Your task to perform on an android device: Search for razer blade on costco, select the first entry, and add it to the cart. Image 0: 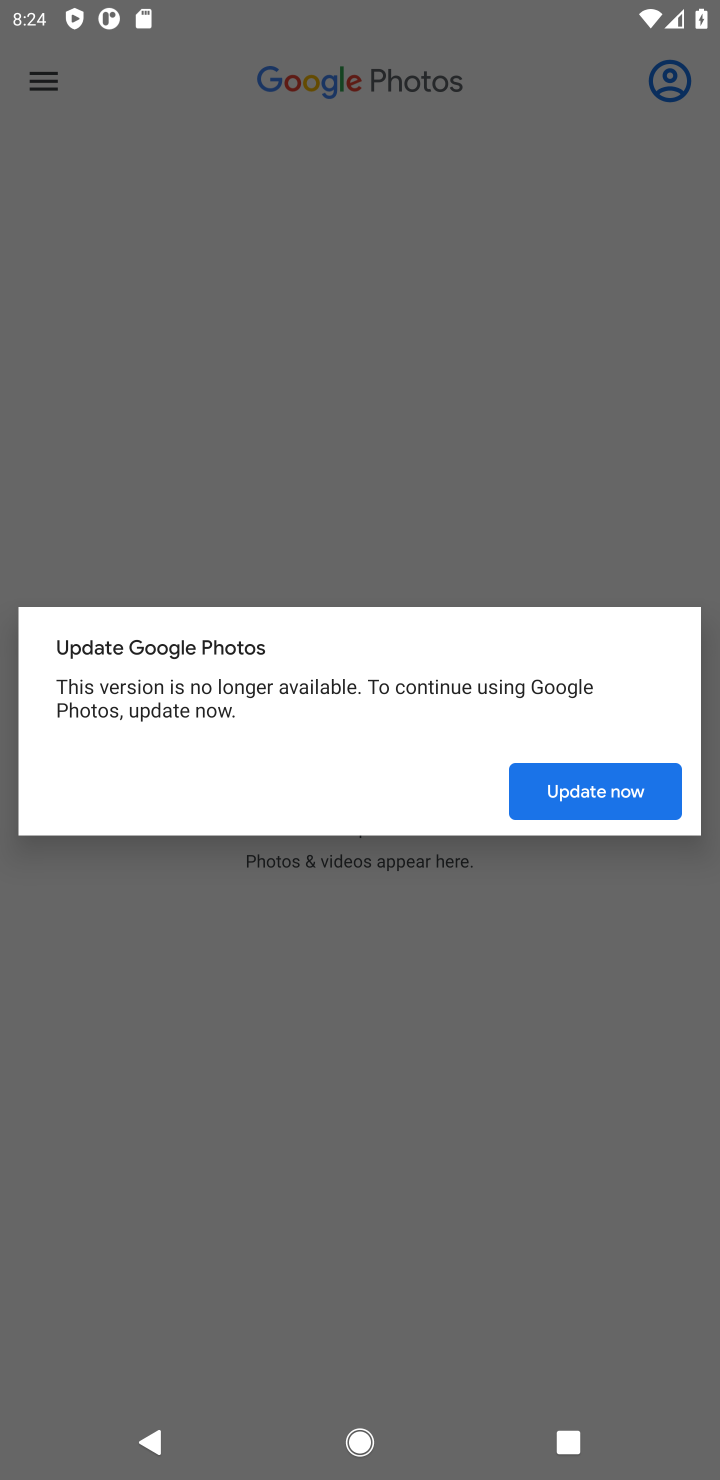
Step 0: press home button
Your task to perform on an android device: Search for razer blade on costco, select the first entry, and add it to the cart. Image 1: 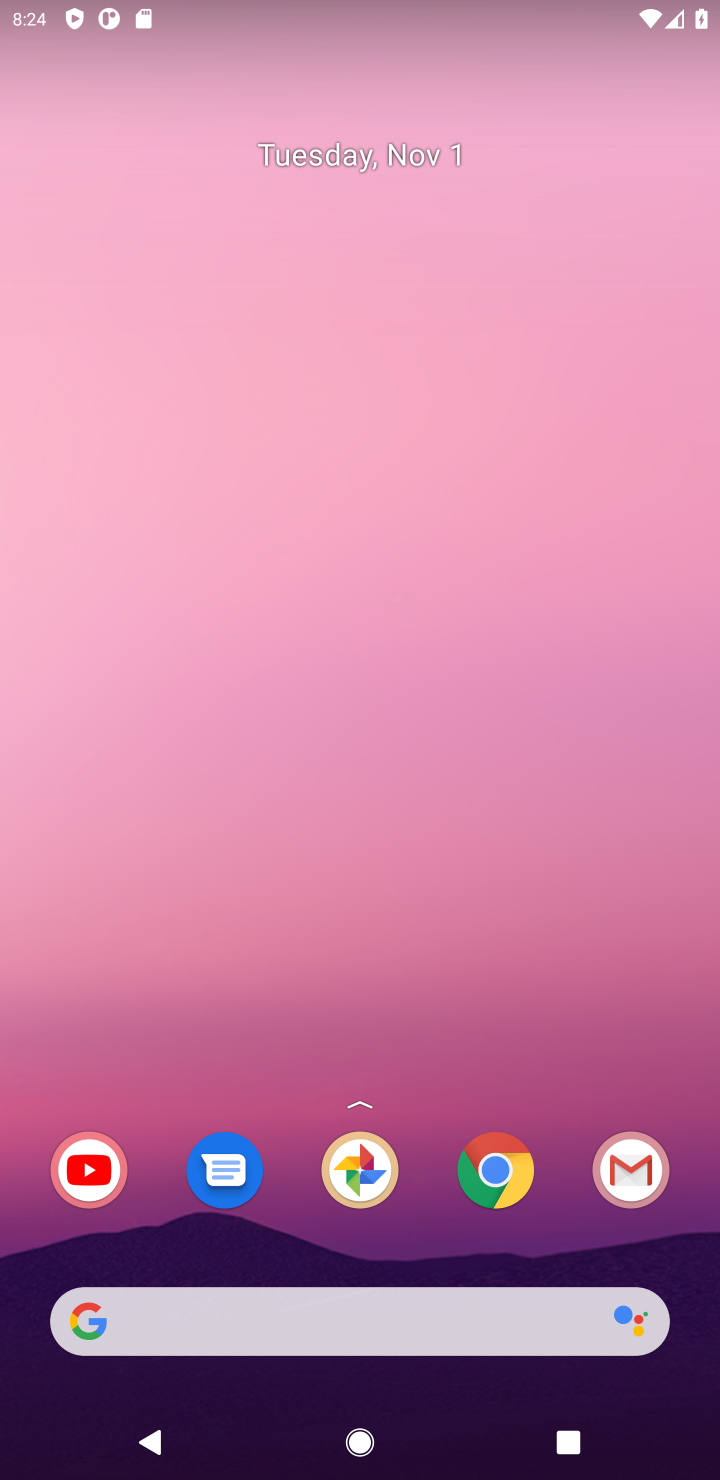
Step 1: click (497, 1189)
Your task to perform on an android device: Search for razer blade on costco, select the first entry, and add it to the cart. Image 2: 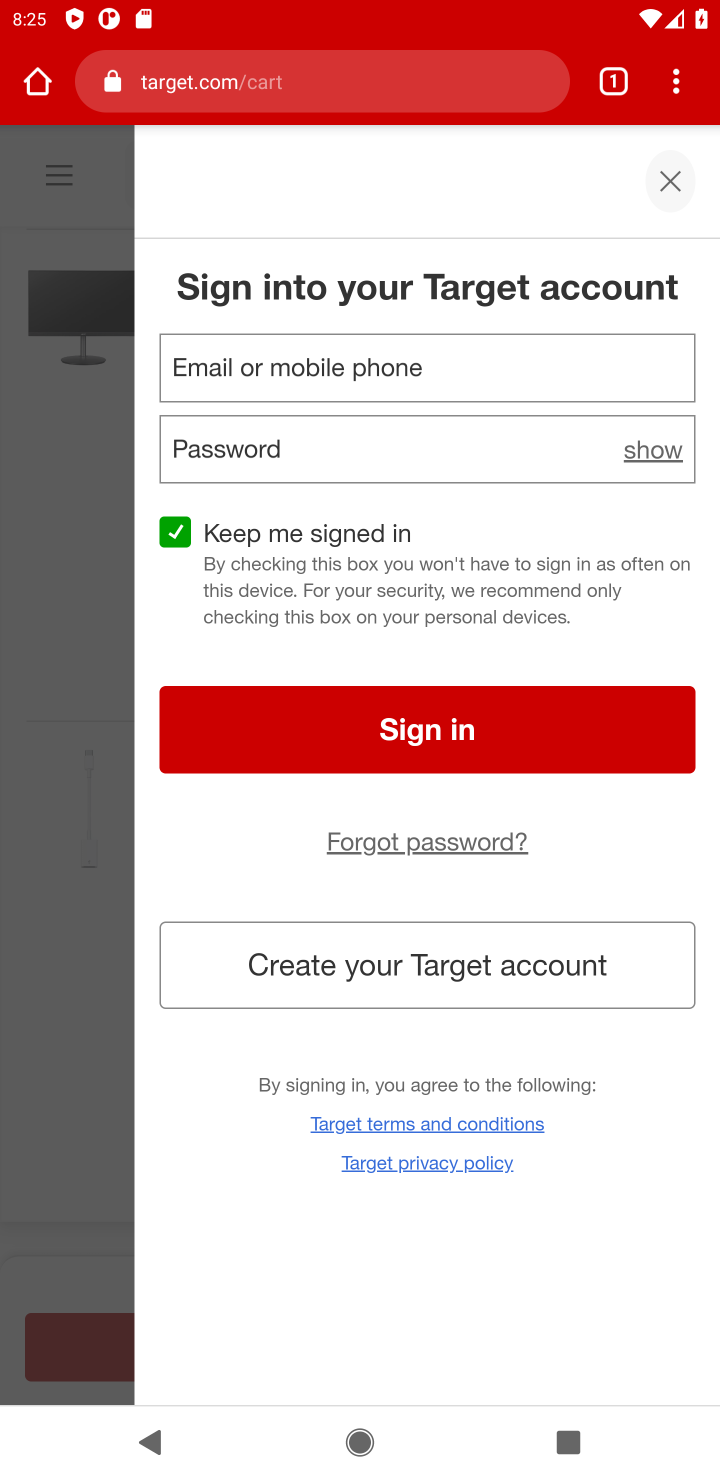
Step 2: click (417, 97)
Your task to perform on an android device: Search for razer blade on costco, select the first entry, and add it to the cart. Image 3: 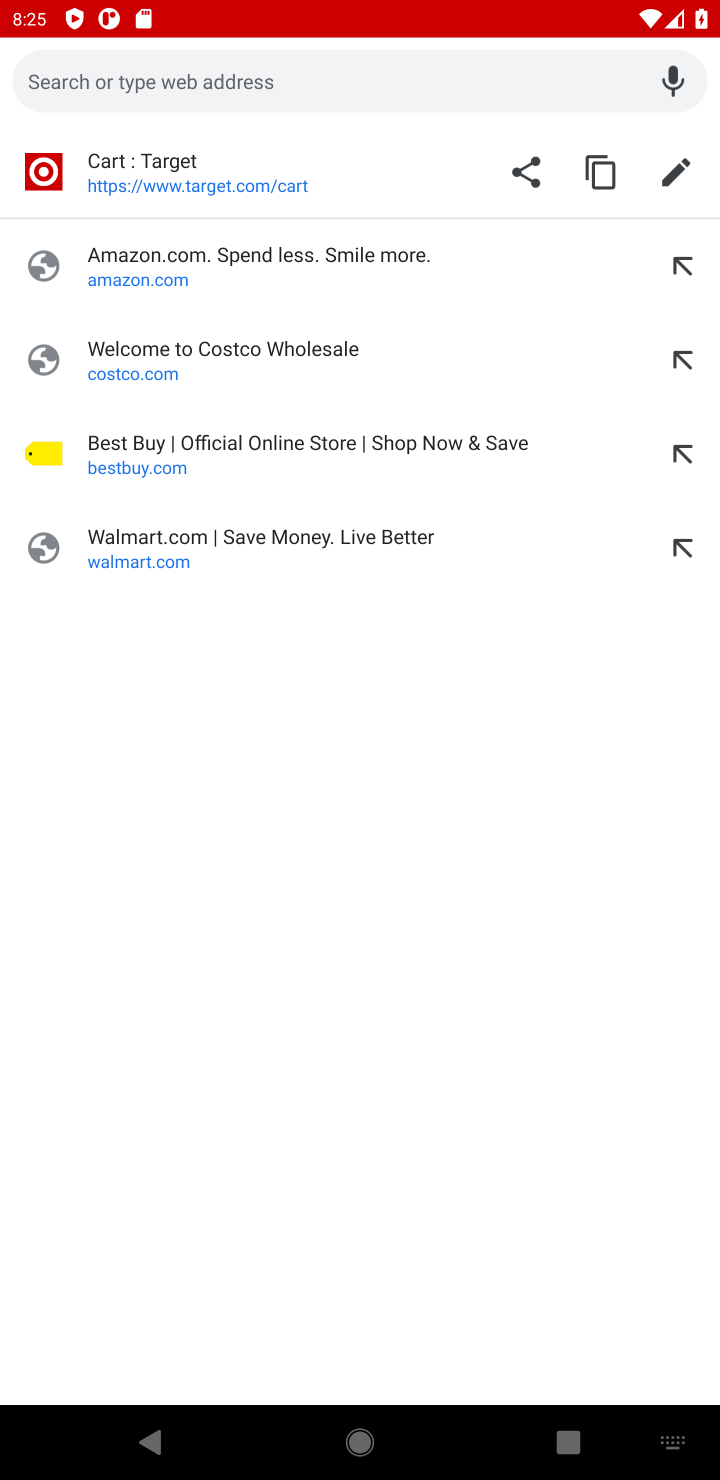
Step 3: type "costco"
Your task to perform on an android device: Search for razer blade on costco, select the first entry, and add it to the cart. Image 4: 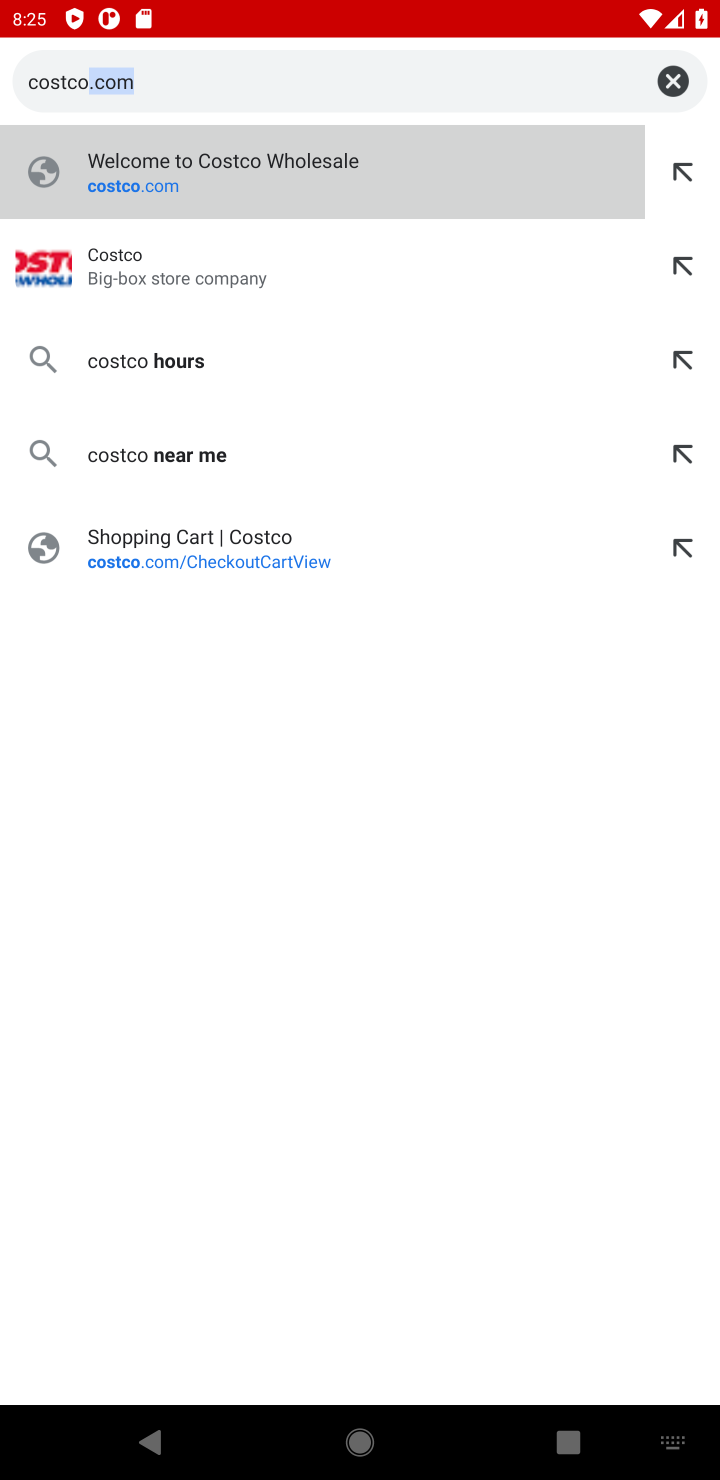
Step 4: press enter
Your task to perform on an android device: Search for razer blade on costco, select the first entry, and add it to the cart. Image 5: 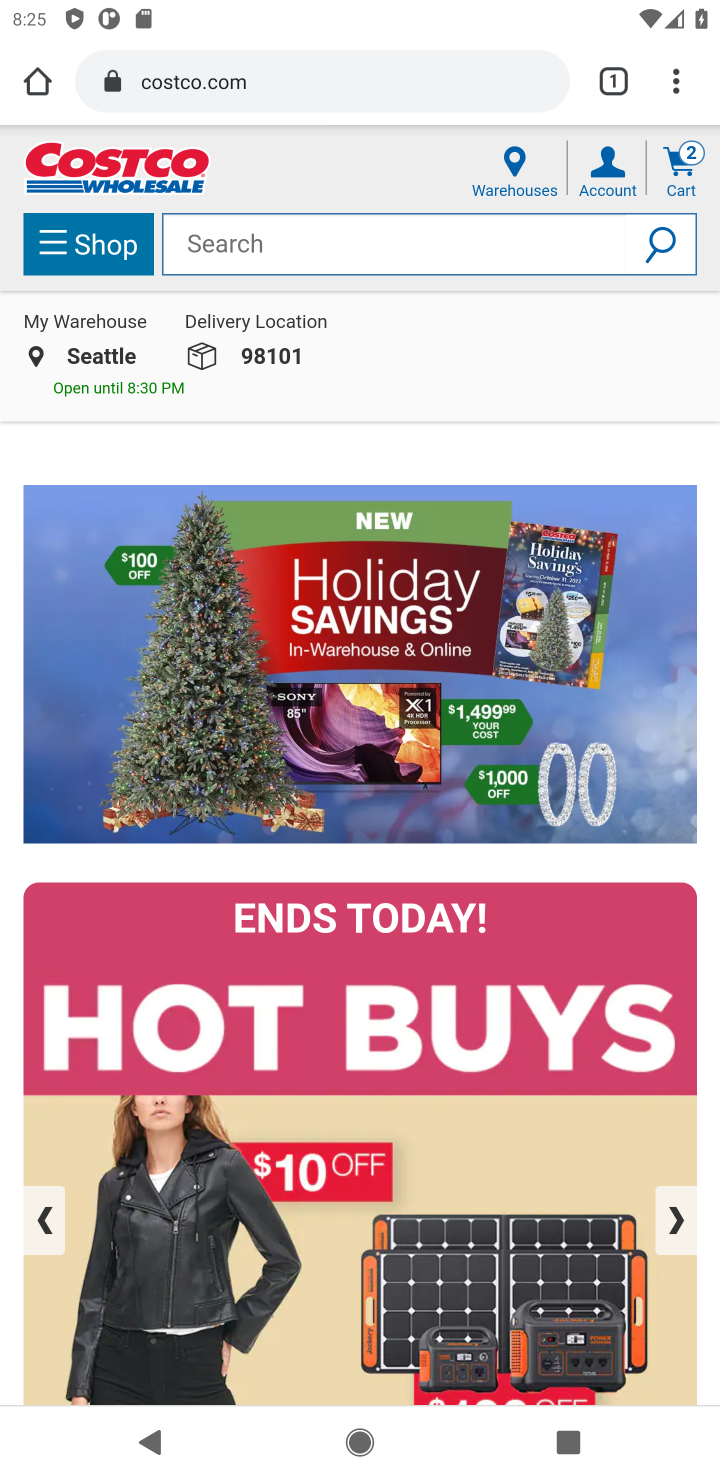
Step 5: click (431, 258)
Your task to perform on an android device: Search for razer blade on costco, select the first entry, and add it to the cart. Image 6: 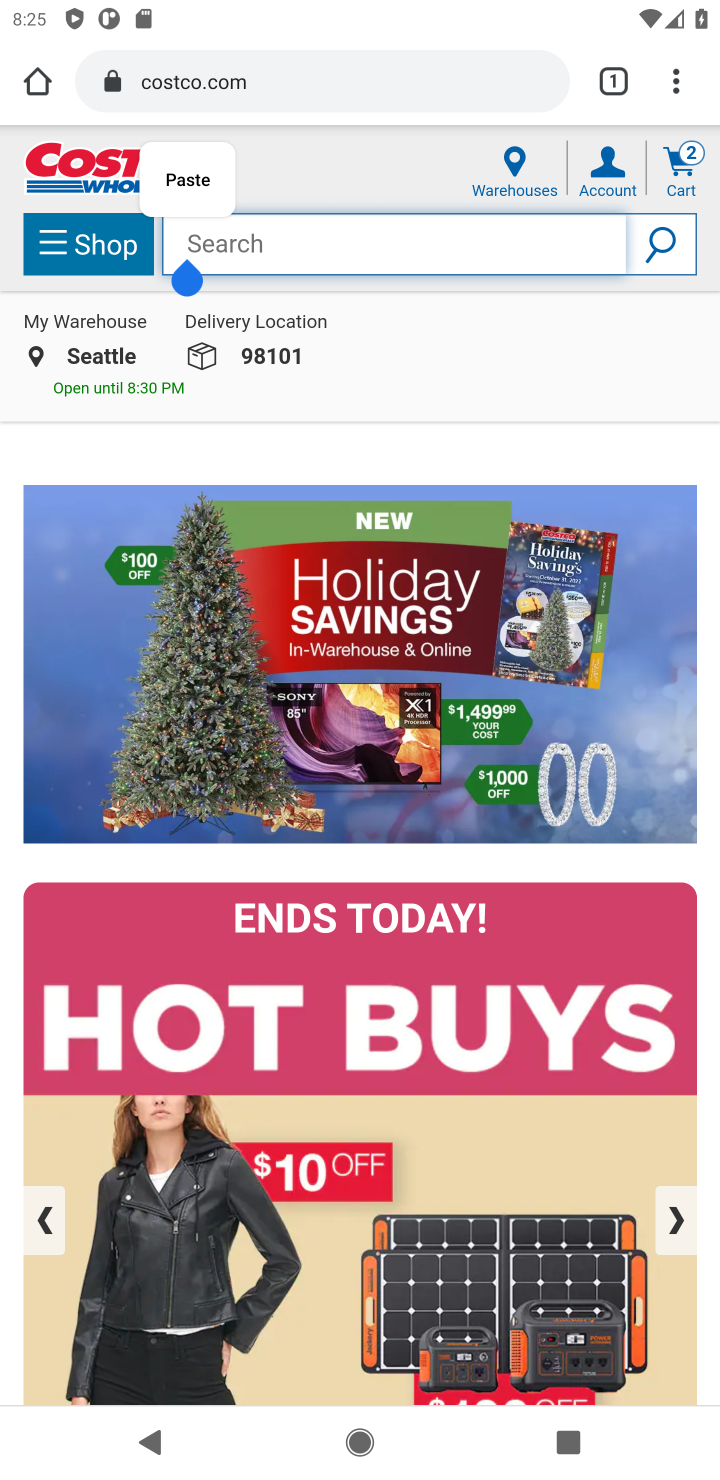
Step 6: type "razer blade"
Your task to perform on an android device: Search for razer blade on costco, select the first entry, and add it to the cart. Image 7: 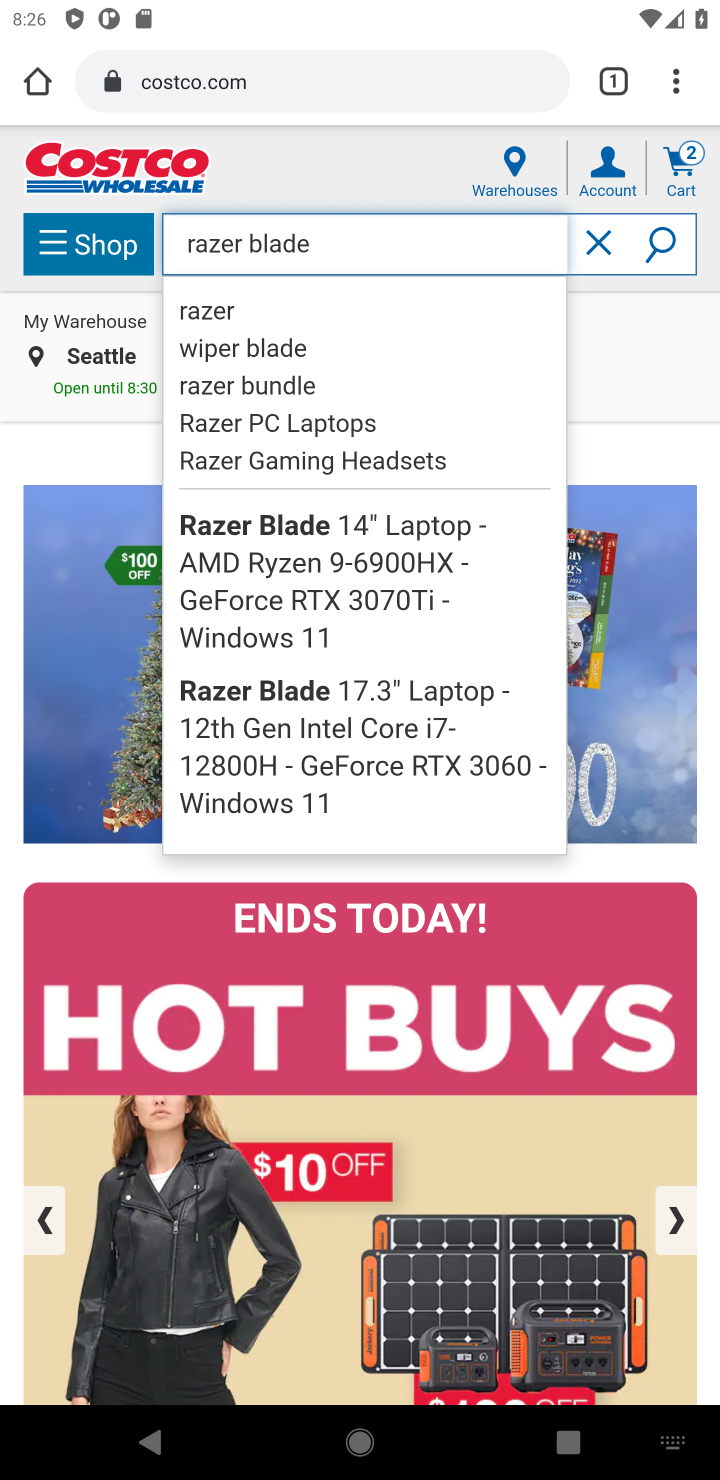
Step 7: press enter
Your task to perform on an android device: Search for razer blade on costco, select the first entry, and add it to the cart. Image 8: 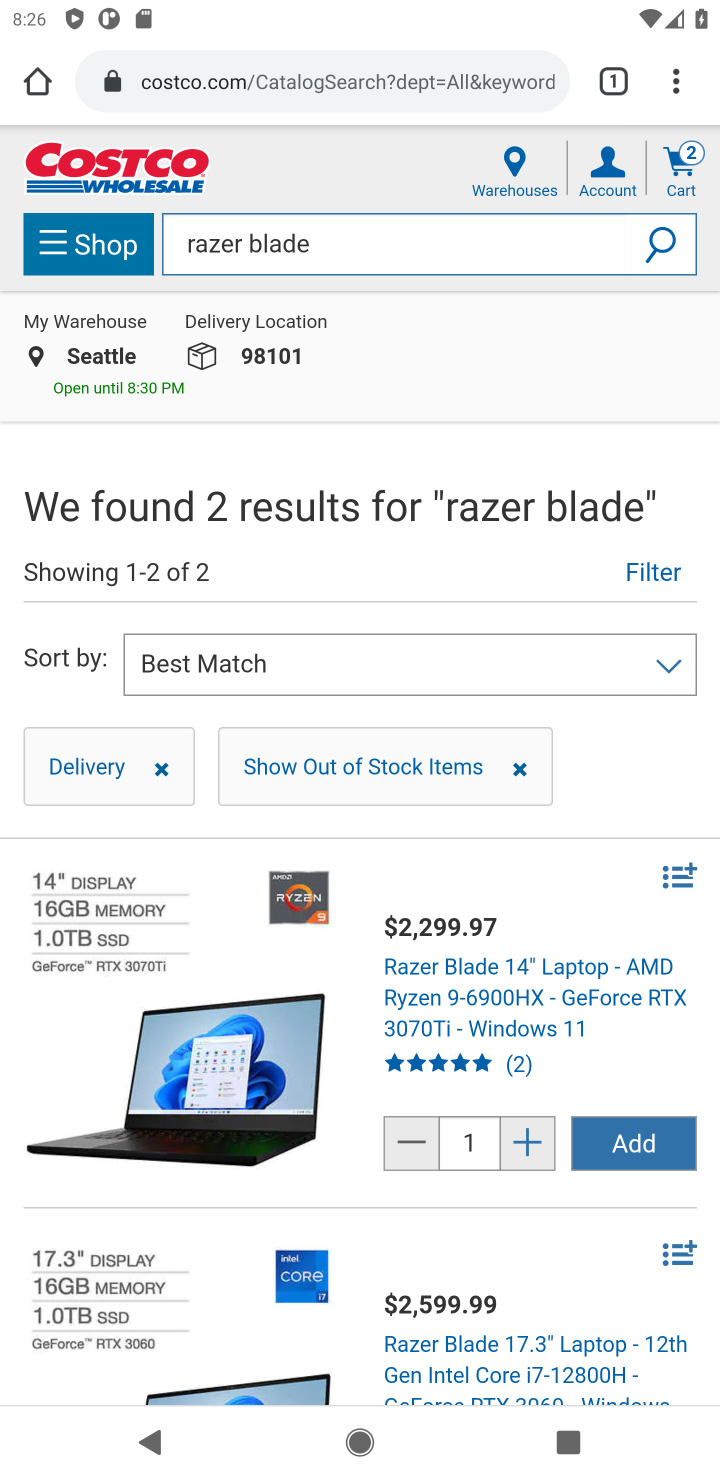
Step 8: click (454, 1083)
Your task to perform on an android device: Search for razer blade on costco, select the first entry, and add it to the cart. Image 9: 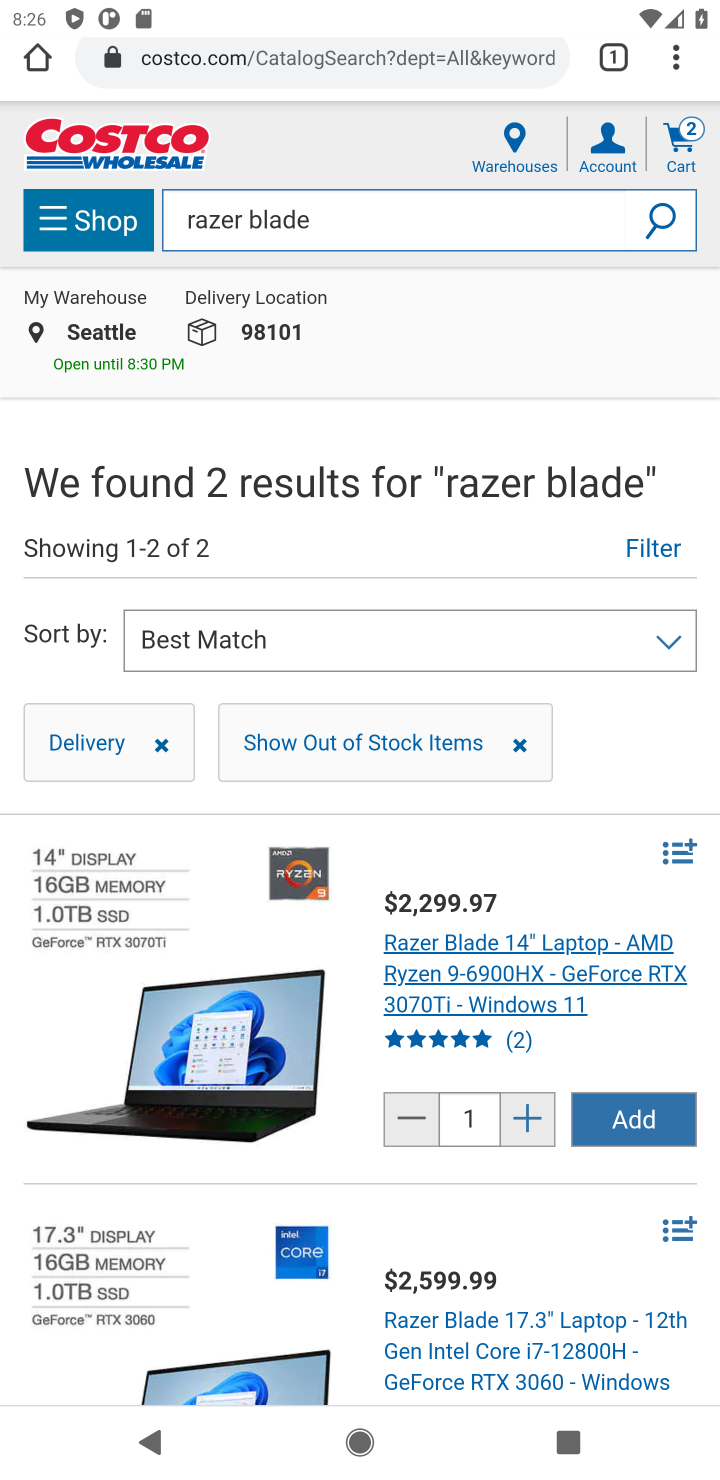
Step 9: click (467, 1047)
Your task to perform on an android device: Search for razer blade on costco, select the first entry, and add it to the cart. Image 10: 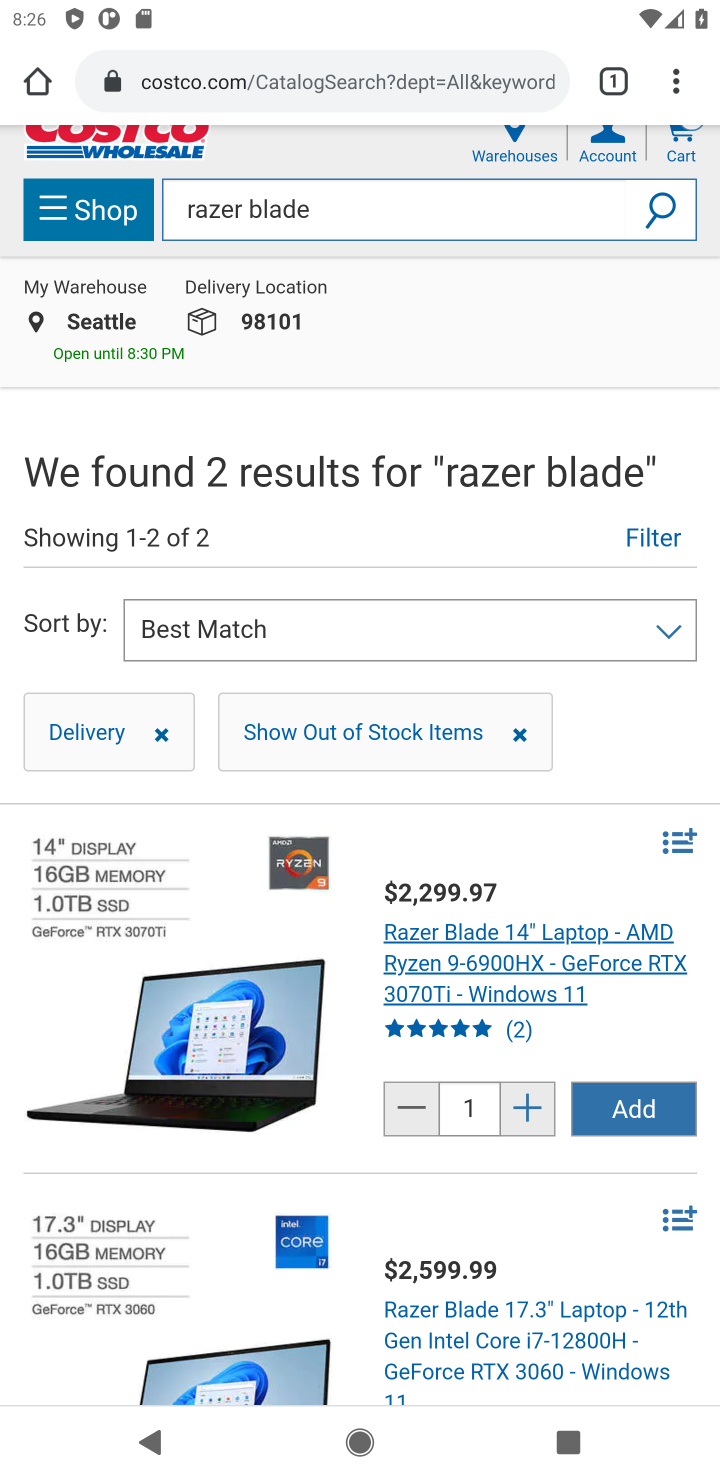
Step 10: drag from (310, 1058) to (288, 919)
Your task to perform on an android device: Search for razer blade on costco, select the first entry, and add it to the cart. Image 11: 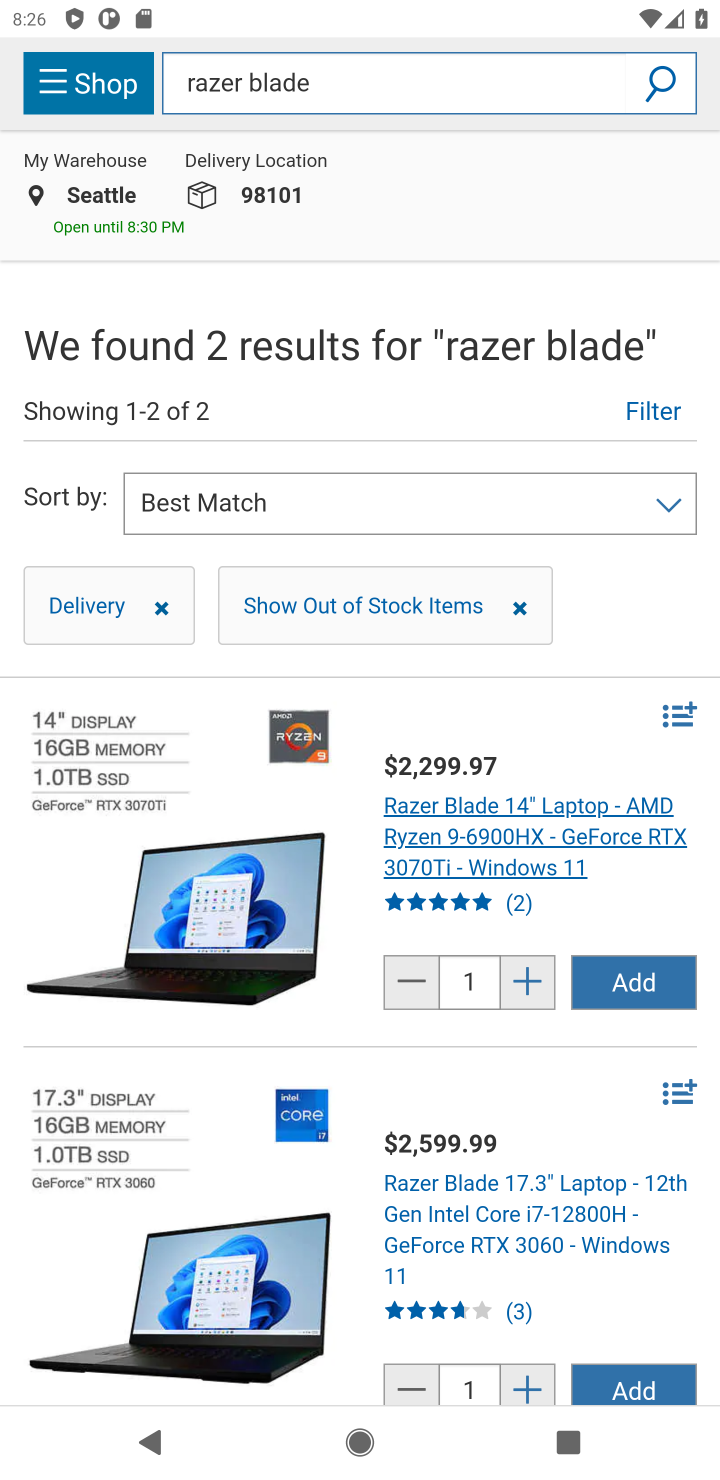
Step 11: click (444, 914)
Your task to perform on an android device: Search for razer blade on costco, select the first entry, and add it to the cart. Image 12: 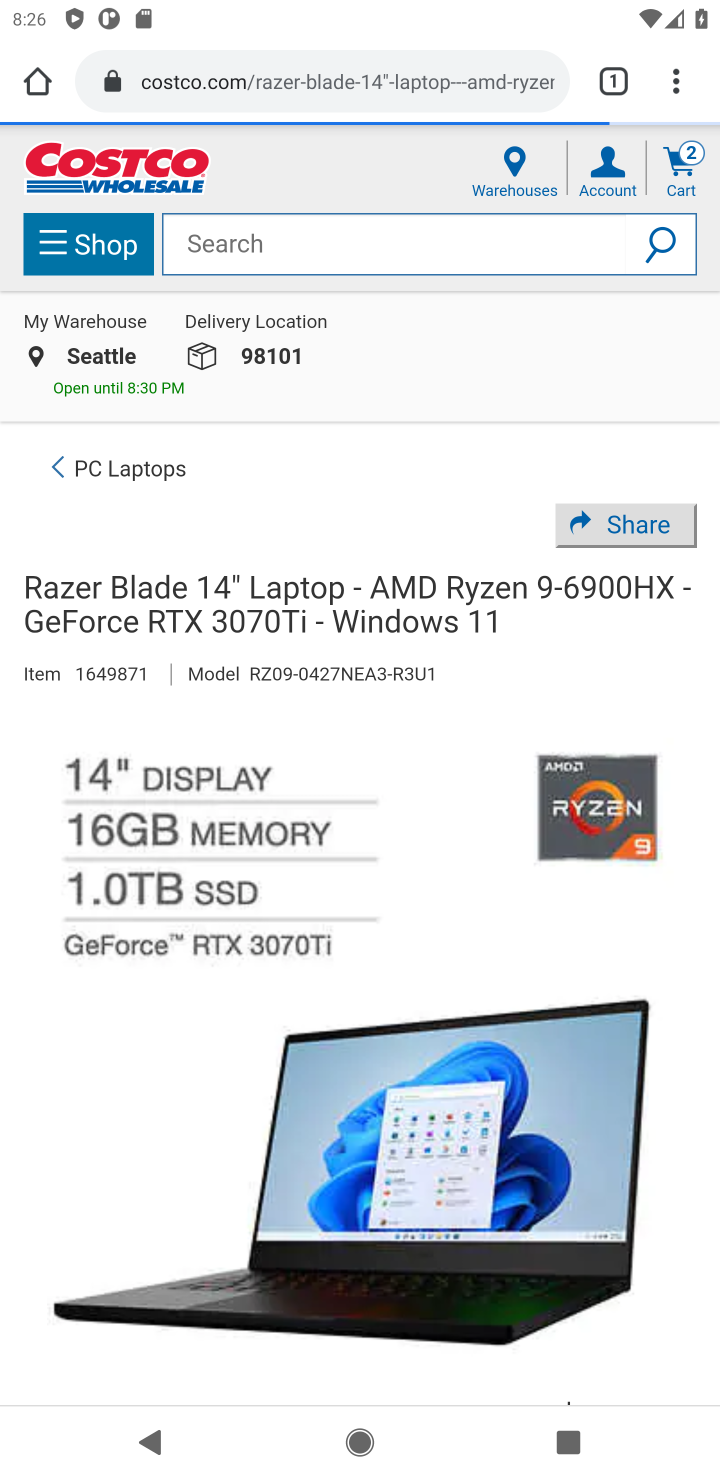
Step 12: drag from (595, 1052) to (465, 625)
Your task to perform on an android device: Search for razer blade on costco, select the first entry, and add it to the cart. Image 13: 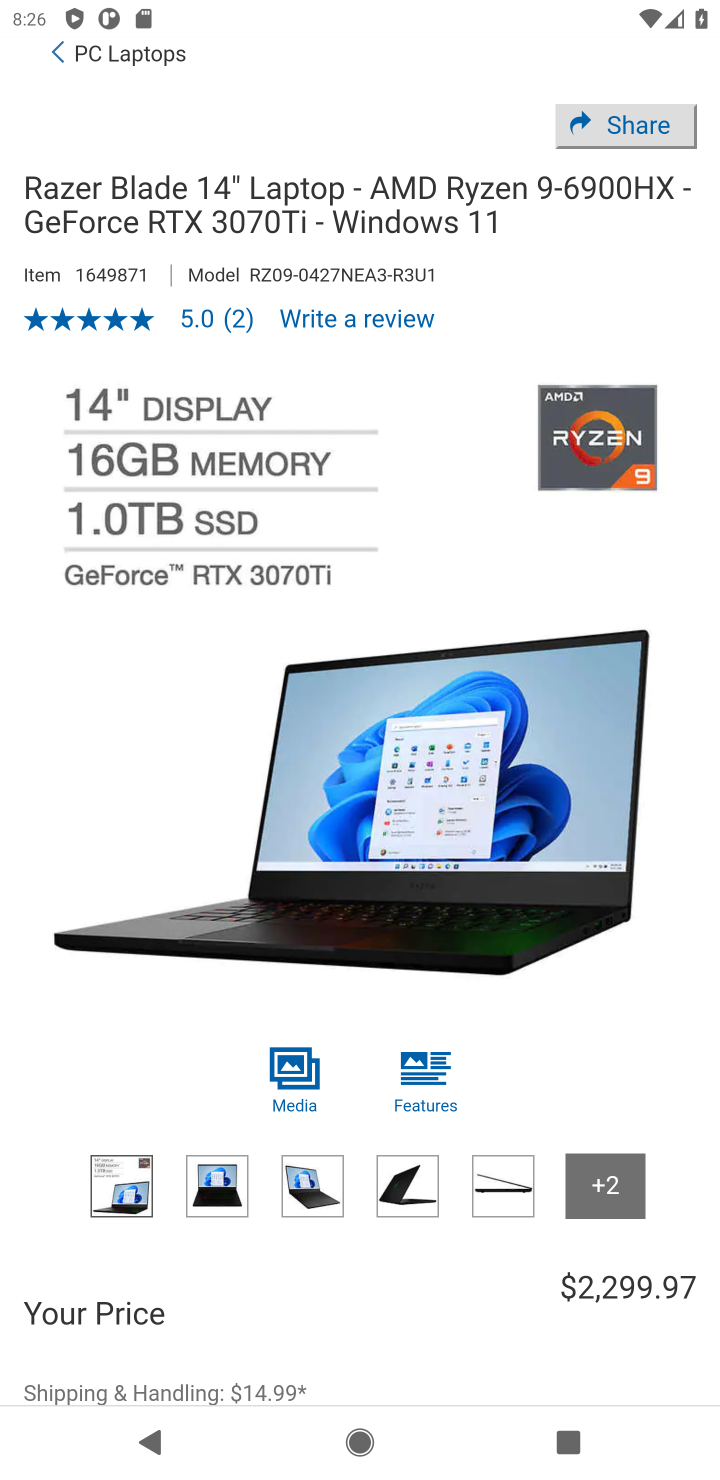
Step 13: drag from (424, 1151) to (400, 519)
Your task to perform on an android device: Search for razer blade on costco, select the first entry, and add it to the cart. Image 14: 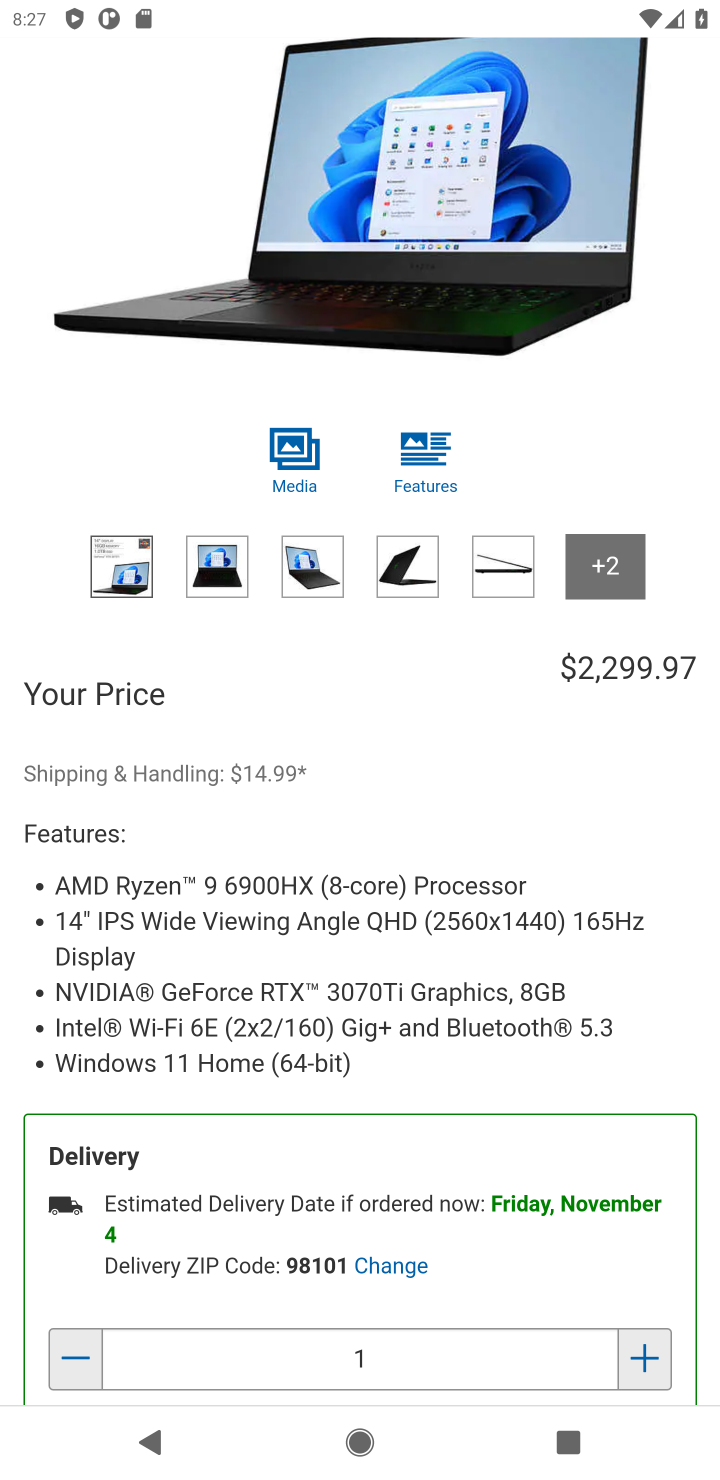
Step 14: drag from (438, 1216) to (400, 974)
Your task to perform on an android device: Search for razer blade on costco, select the first entry, and add it to the cart. Image 15: 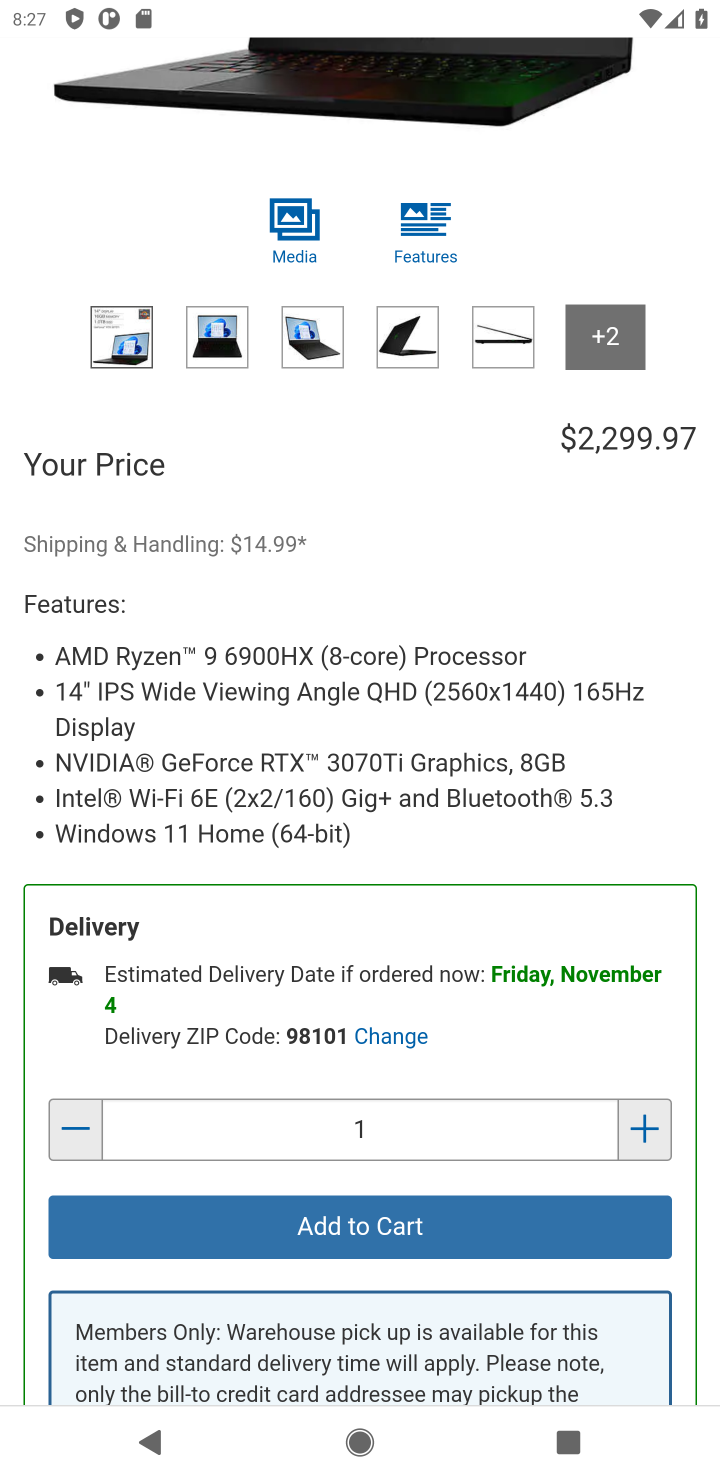
Step 15: click (422, 1233)
Your task to perform on an android device: Search for razer blade on costco, select the first entry, and add it to the cart. Image 16: 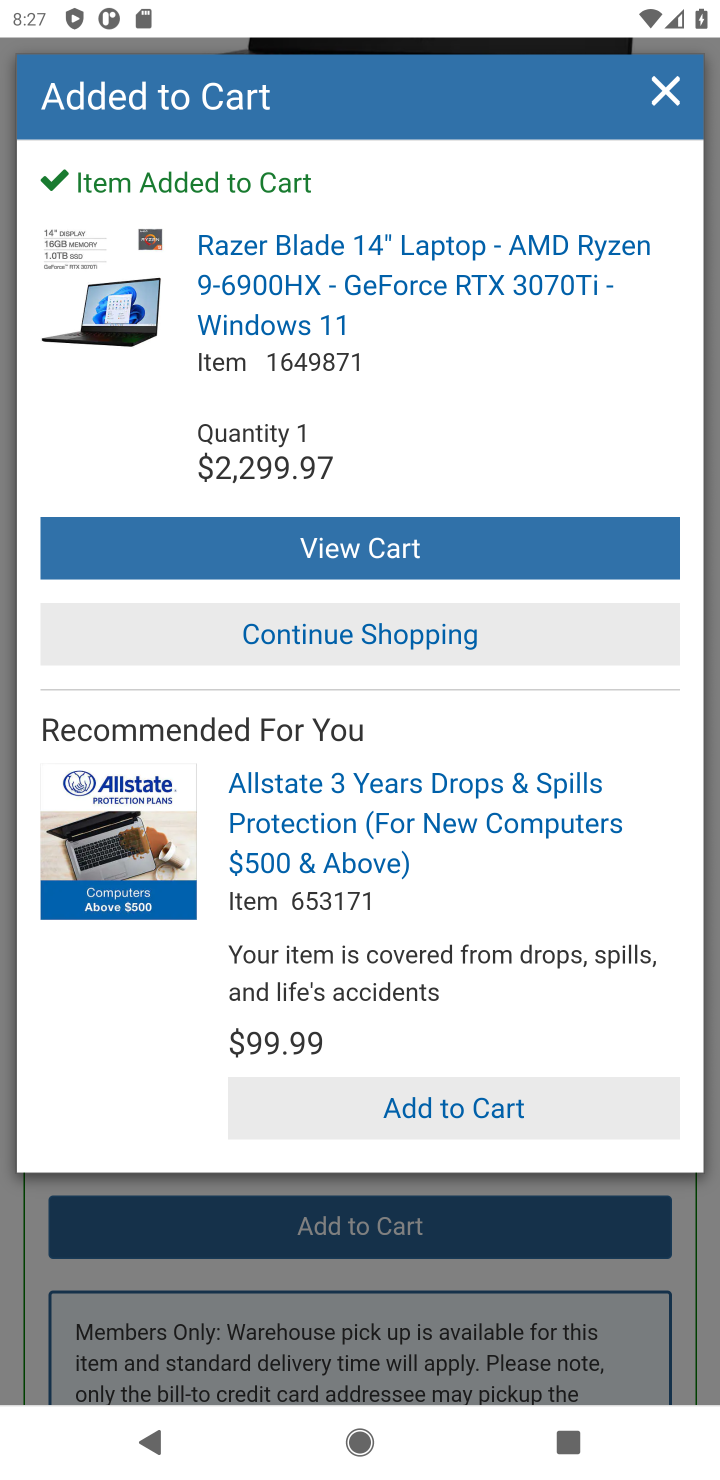
Step 16: click (510, 565)
Your task to perform on an android device: Search for razer blade on costco, select the first entry, and add it to the cart. Image 17: 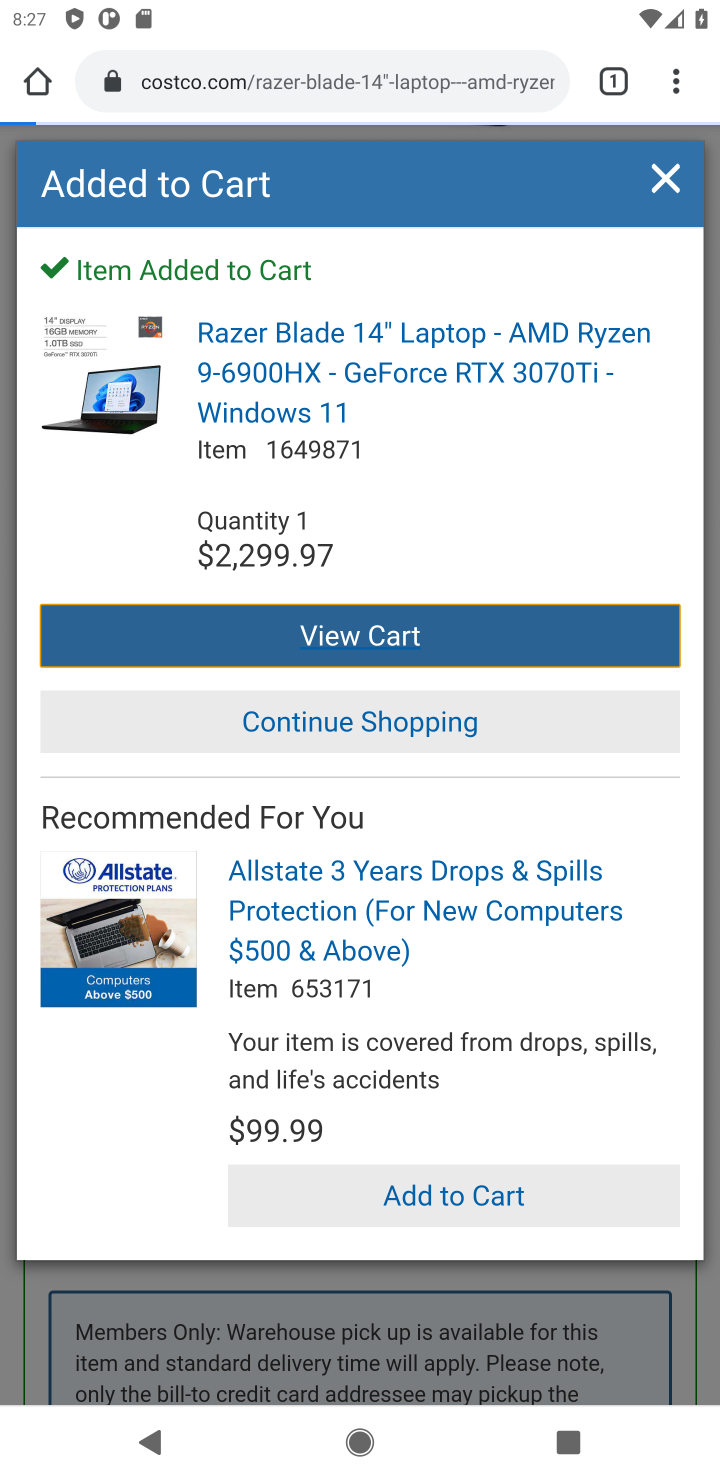
Step 17: task complete